Your task to perform on an android device: check android version Image 0: 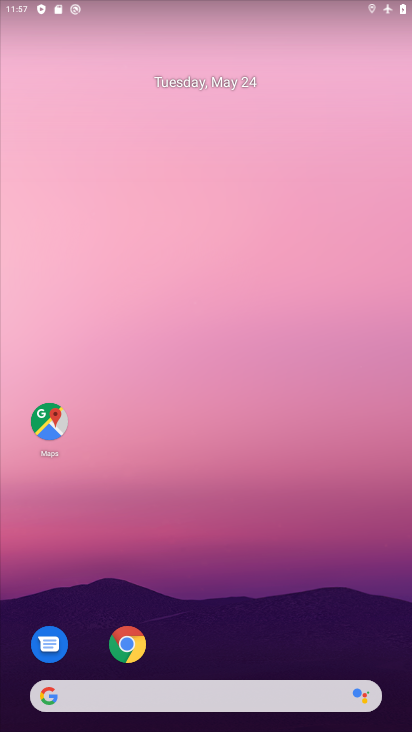
Step 0: drag from (267, 563) to (223, 13)
Your task to perform on an android device: check android version Image 1: 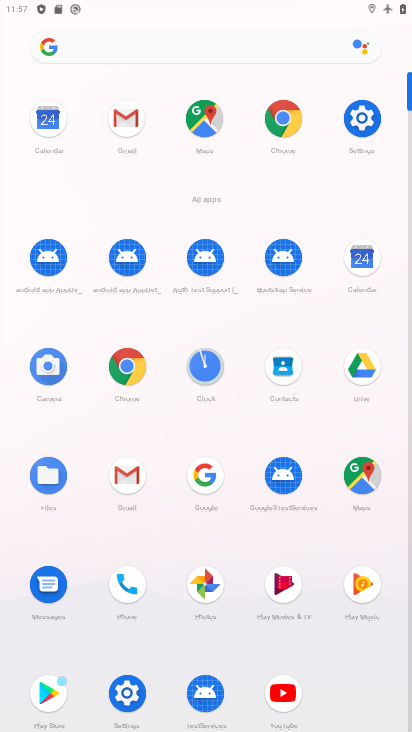
Step 1: click (365, 121)
Your task to perform on an android device: check android version Image 2: 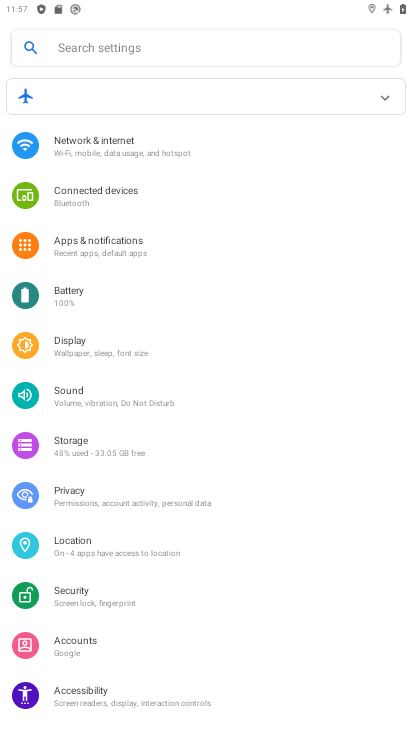
Step 2: drag from (150, 590) to (96, 33)
Your task to perform on an android device: check android version Image 3: 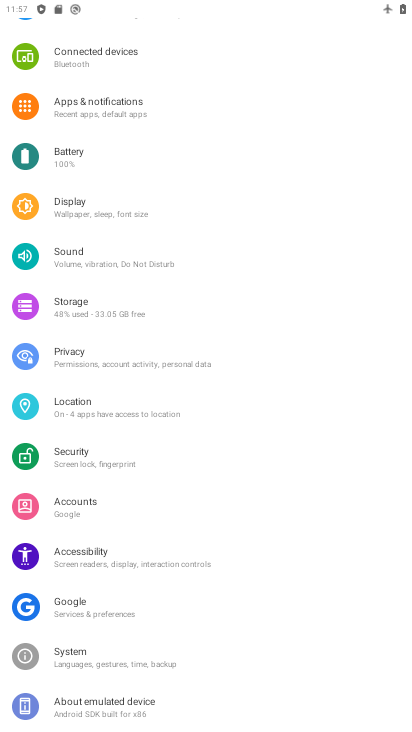
Step 3: click (78, 693)
Your task to perform on an android device: check android version Image 4: 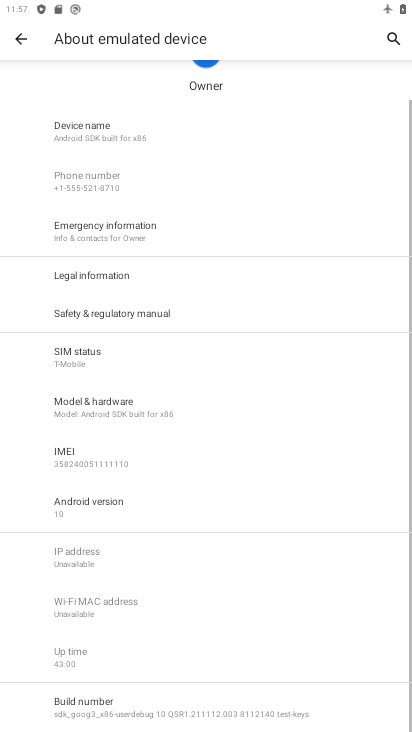
Step 4: click (72, 503)
Your task to perform on an android device: check android version Image 5: 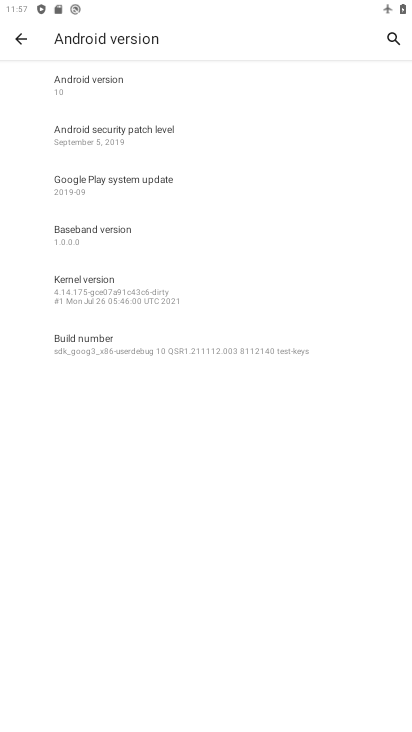
Step 5: task complete